Your task to perform on an android device: Open calendar and show me the first week of next month Image 0: 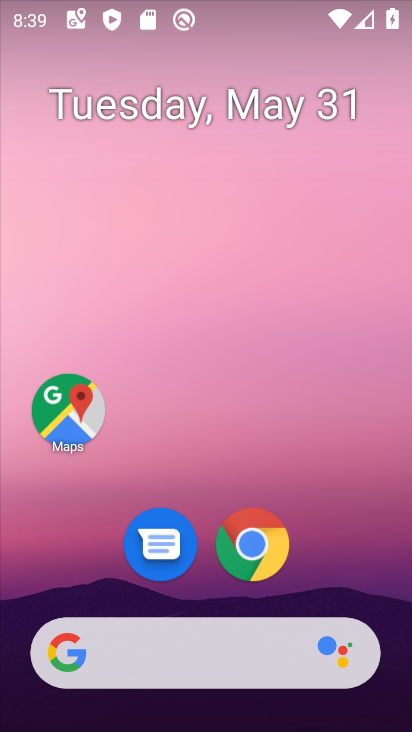
Step 0: drag from (201, 596) to (225, 96)
Your task to perform on an android device: Open calendar and show me the first week of next month Image 1: 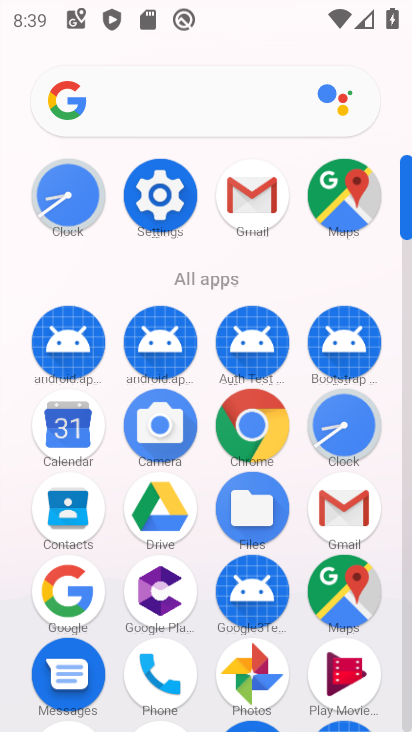
Step 1: click (57, 424)
Your task to perform on an android device: Open calendar and show me the first week of next month Image 2: 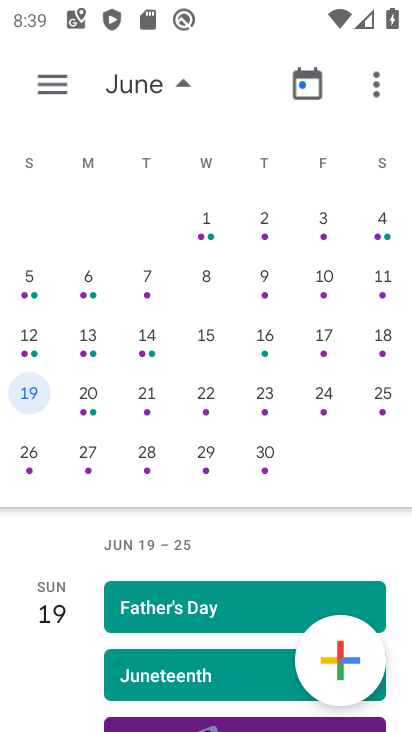
Step 2: click (195, 224)
Your task to perform on an android device: Open calendar and show me the first week of next month Image 3: 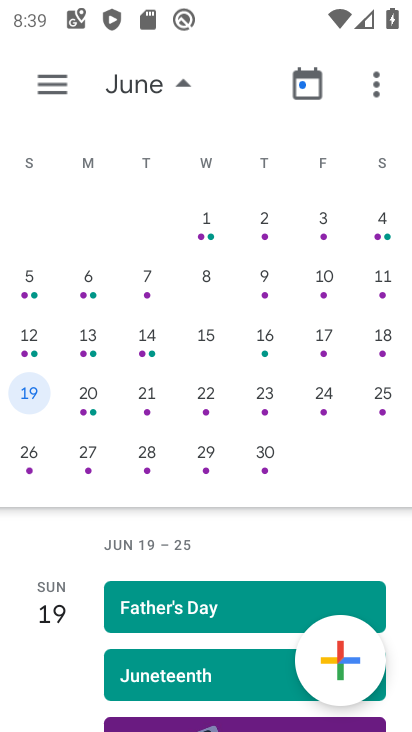
Step 3: click (217, 228)
Your task to perform on an android device: Open calendar and show me the first week of next month Image 4: 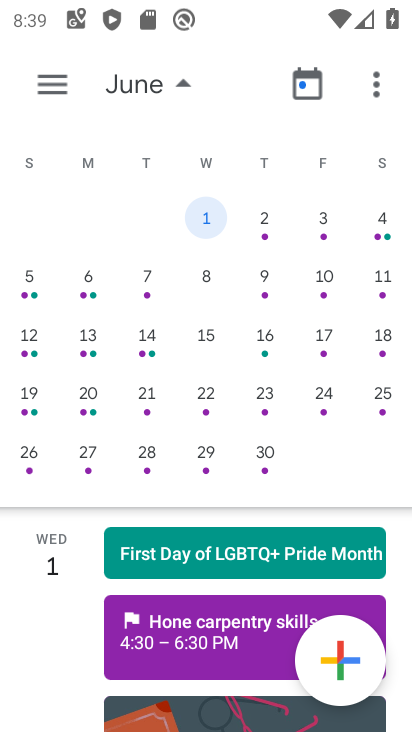
Step 4: task complete